Your task to perform on an android device: toggle notification dots Image 0: 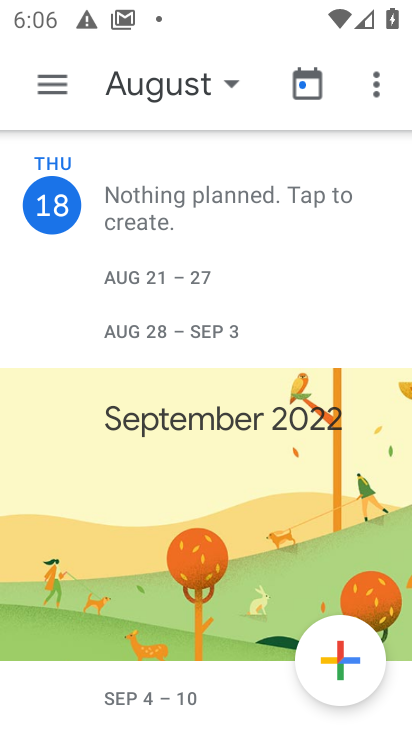
Step 0: press home button
Your task to perform on an android device: toggle notification dots Image 1: 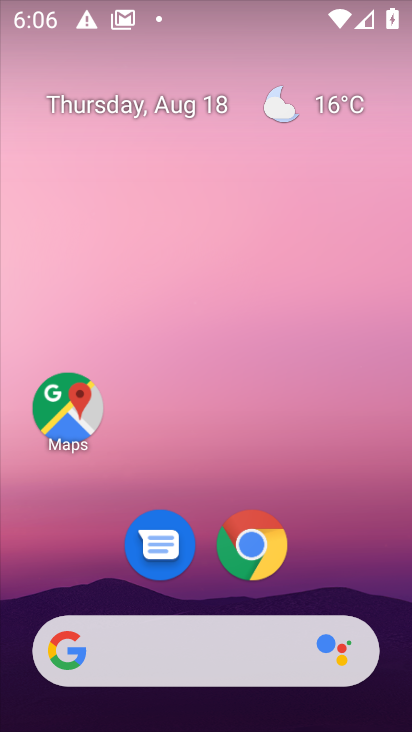
Step 1: drag from (344, 557) to (253, 157)
Your task to perform on an android device: toggle notification dots Image 2: 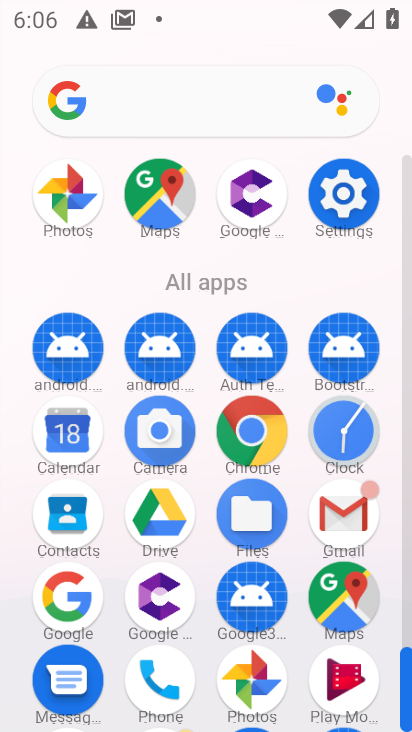
Step 2: click (342, 195)
Your task to perform on an android device: toggle notification dots Image 3: 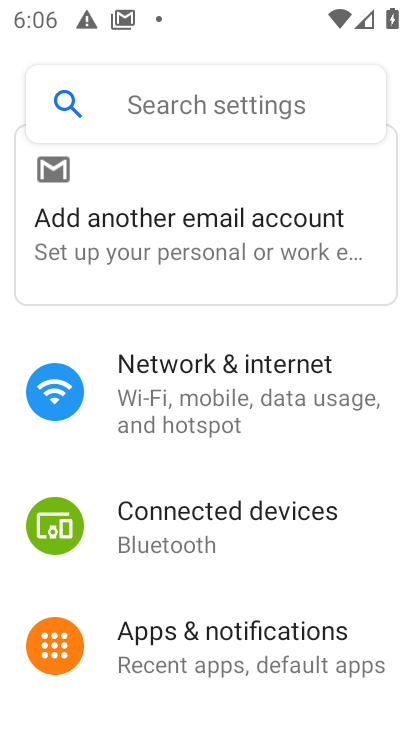
Step 3: drag from (231, 471) to (206, 264)
Your task to perform on an android device: toggle notification dots Image 4: 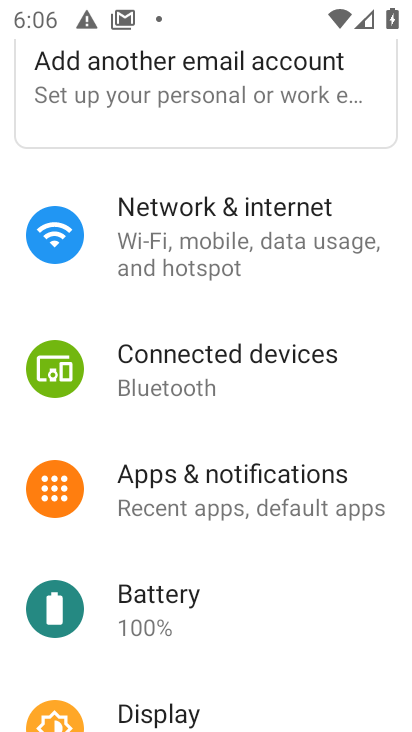
Step 4: click (228, 472)
Your task to perform on an android device: toggle notification dots Image 5: 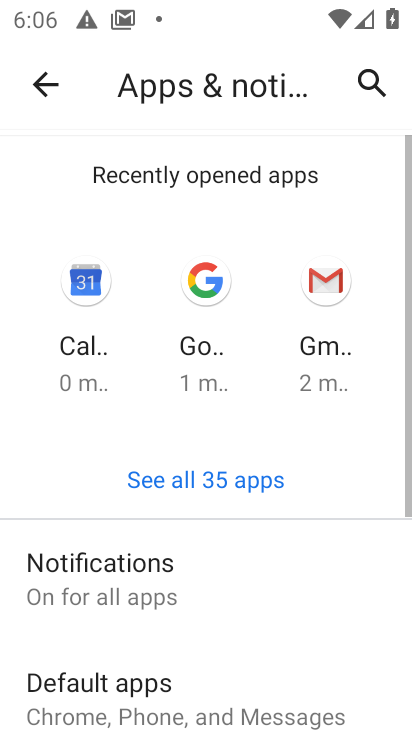
Step 5: drag from (231, 535) to (149, 140)
Your task to perform on an android device: toggle notification dots Image 6: 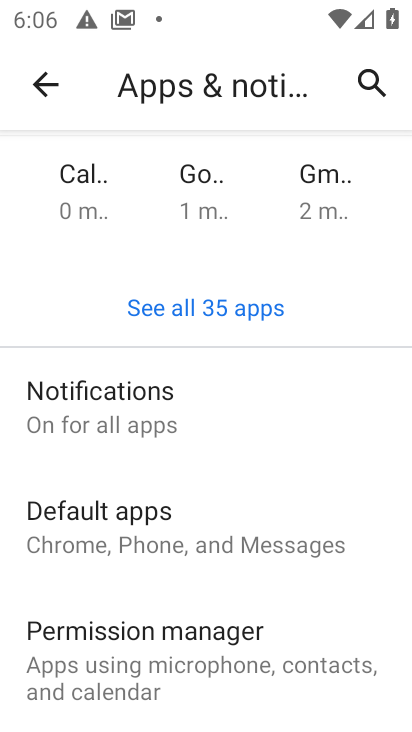
Step 6: drag from (227, 465) to (227, 238)
Your task to perform on an android device: toggle notification dots Image 7: 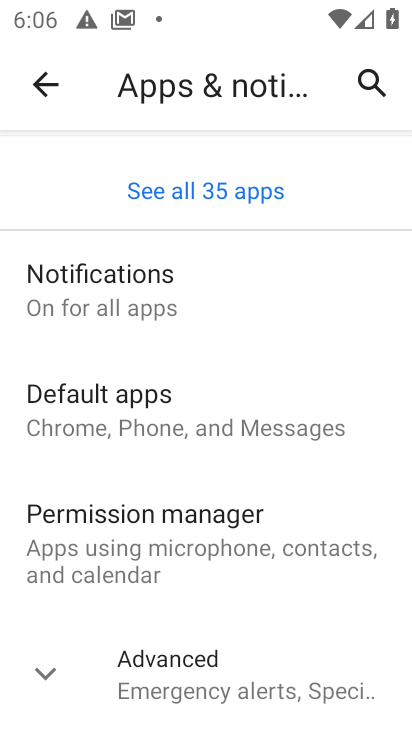
Step 7: click (55, 673)
Your task to perform on an android device: toggle notification dots Image 8: 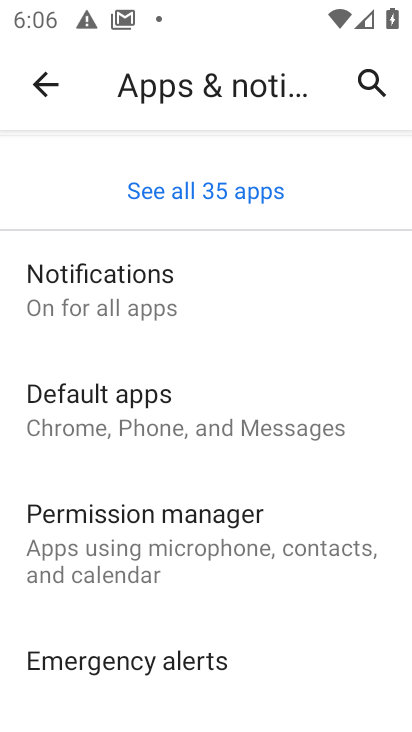
Step 8: drag from (229, 615) to (229, 305)
Your task to perform on an android device: toggle notification dots Image 9: 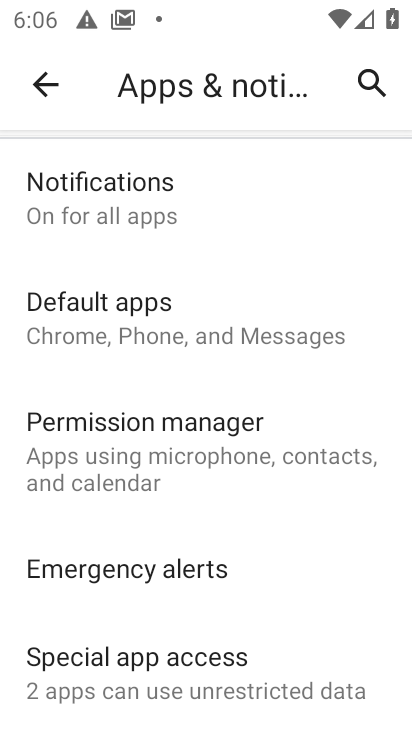
Step 9: click (79, 183)
Your task to perform on an android device: toggle notification dots Image 10: 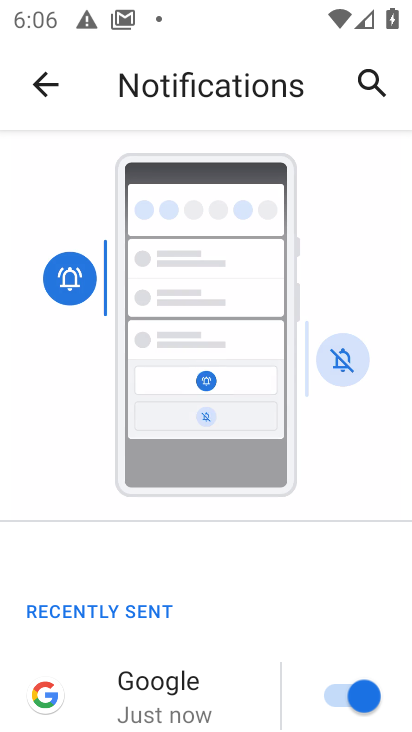
Step 10: drag from (242, 562) to (223, 194)
Your task to perform on an android device: toggle notification dots Image 11: 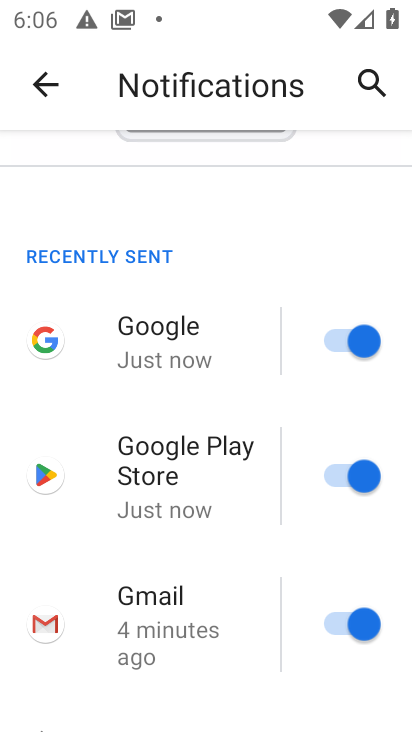
Step 11: drag from (242, 598) to (209, 307)
Your task to perform on an android device: toggle notification dots Image 12: 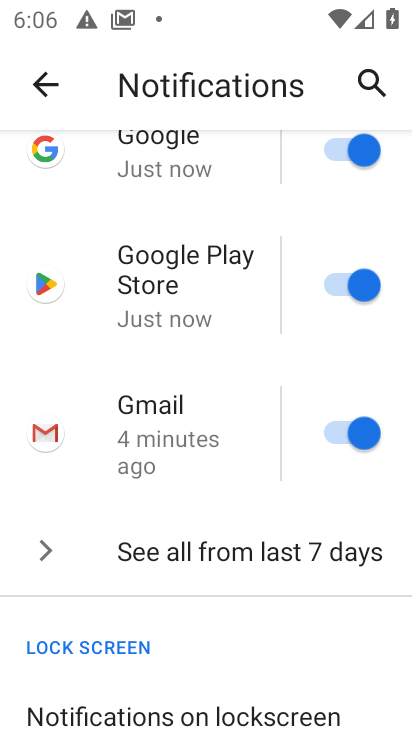
Step 12: drag from (217, 606) to (202, 386)
Your task to perform on an android device: toggle notification dots Image 13: 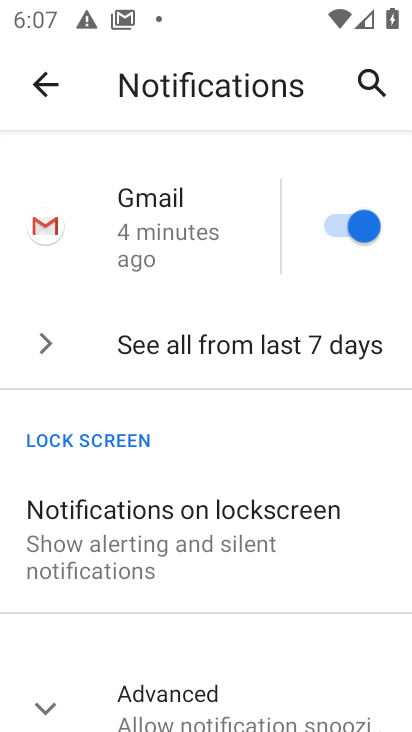
Step 13: click (42, 711)
Your task to perform on an android device: toggle notification dots Image 14: 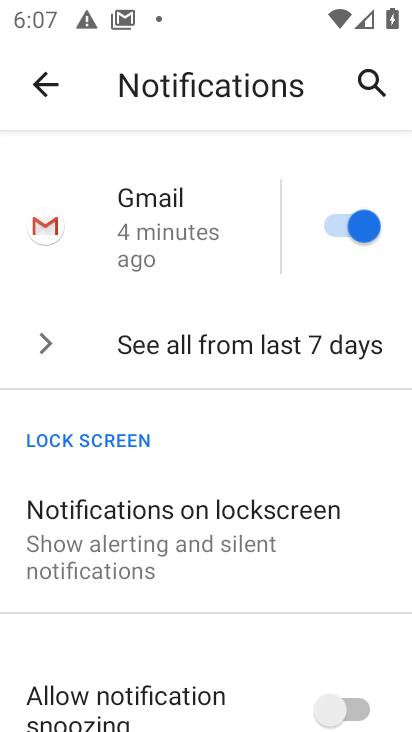
Step 14: drag from (189, 643) to (164, 336)
Your task to perform on an android device: toggle notification dots Image 15: 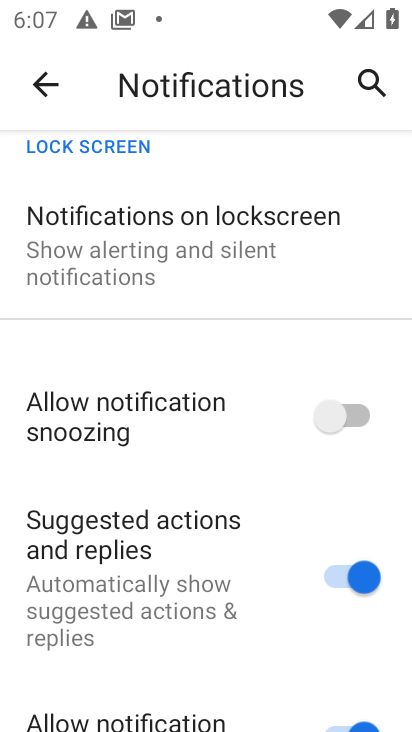
Step 15: drag from (225, 644) to (224, 292)
Your task to perform on an android device: toggle notification dots Image 16: 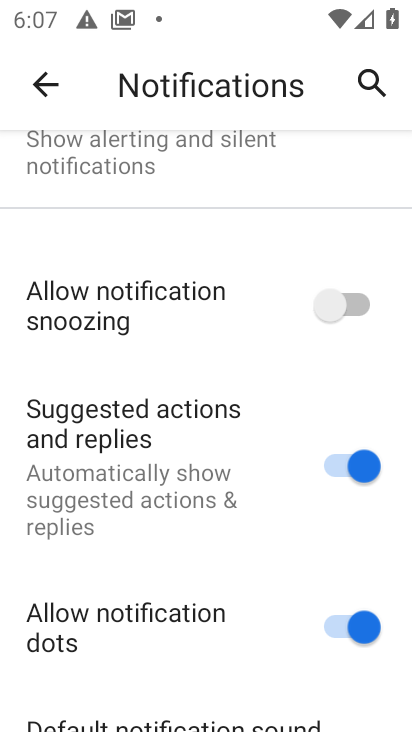
Step 16: click (353, 630)
Your task to perform on an android device: toggle notification dots Image 17: 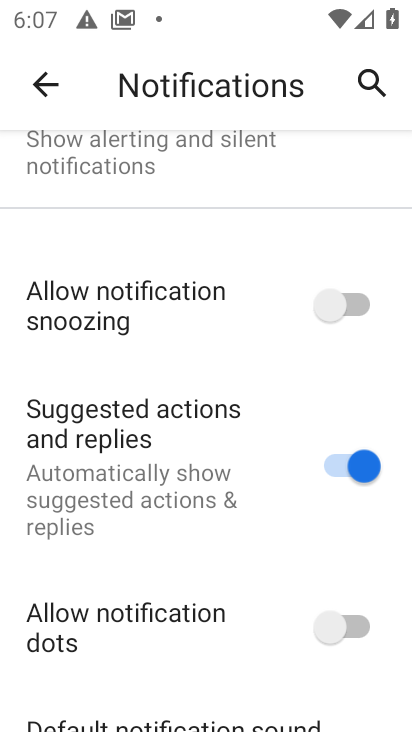
Step 17: task complete